Your task to perform on an android device: Open Yahoo.com Image 0: 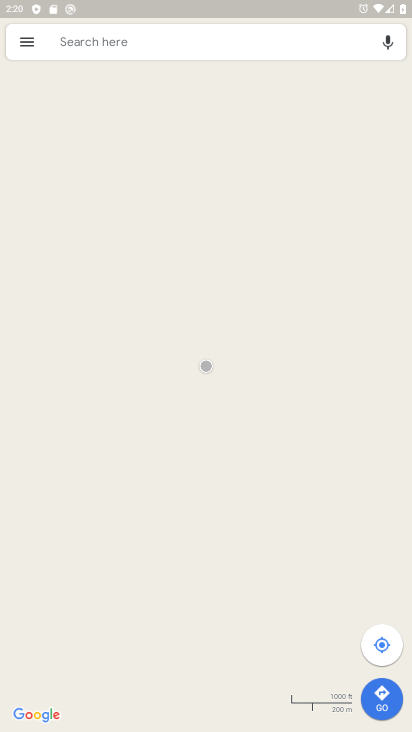
Step 0: press home button
Your task to perform on an android device: Open Yahoo.com Image 1: 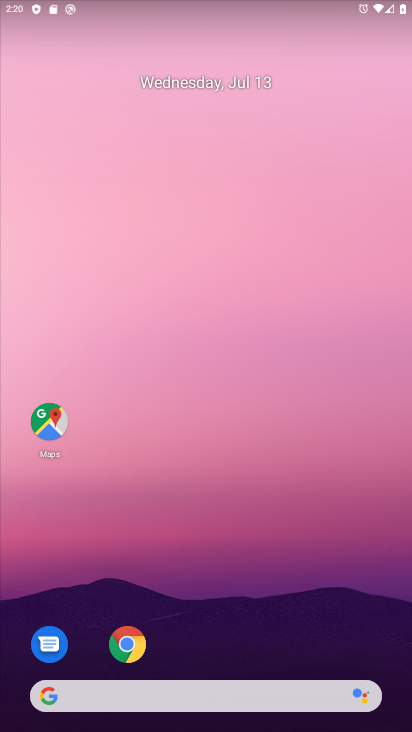
Step 1: click (170, 702)
Your task to perform on an android device: Open Yahoo.com Image 2: 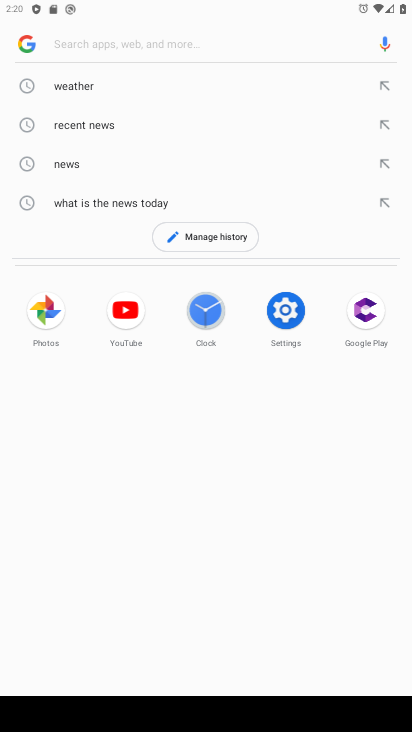
Step 2: type "yahoo.com"
Your task to perform on an android device: Open Yahoo.com Image 3: 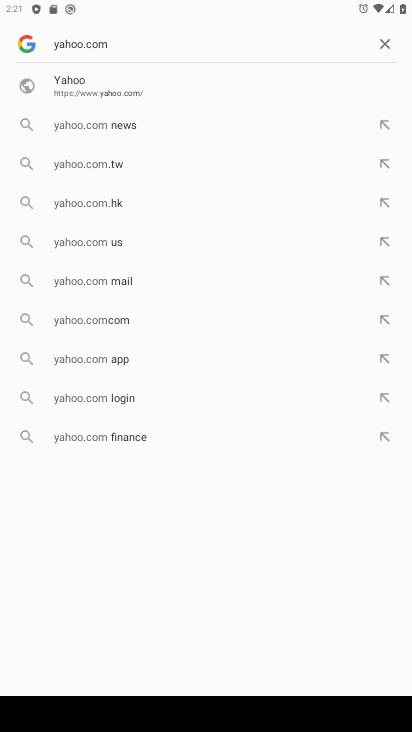
Step 3: click (164, 77)
Your task to perform on an android device: Open Yahoo.com Image 4: 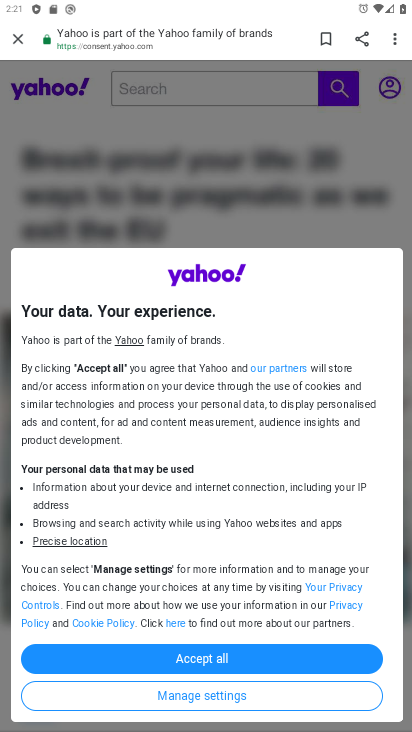
Step 4: task complete